Your task to perform on an android device: open wifi settings Image 0: 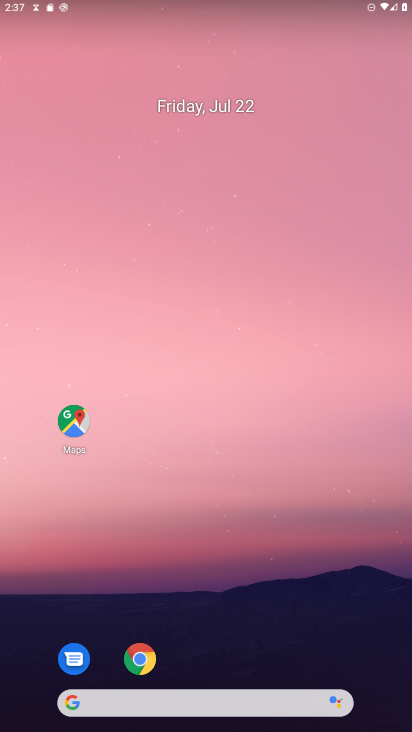
Step 0: drag from (284, 647) to (316, 8)
Your task to perform on an android device: open wifi settings Image 1: 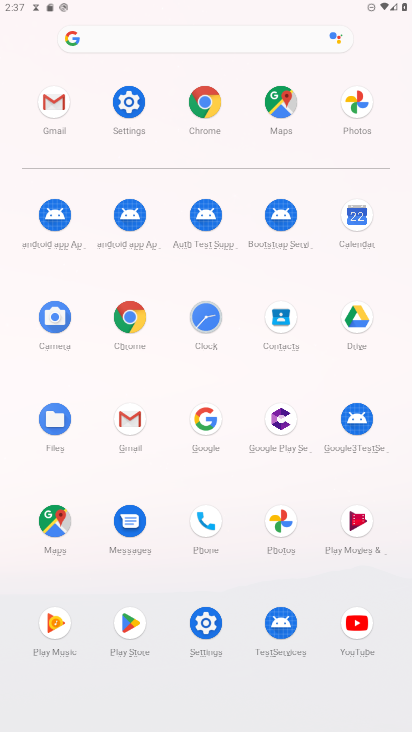
Step 1: click (131, 105)
Your task to perform on an android device: open wifi settings Image 2: 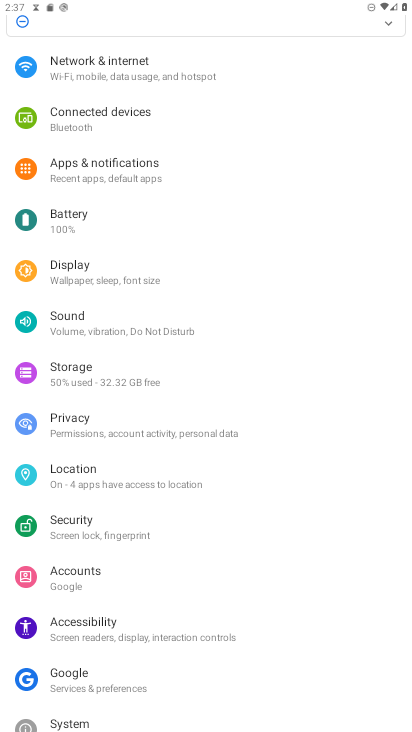
Step 2: click (130, 73)
Your task to perform on an android device: open wifi settings Image 3: 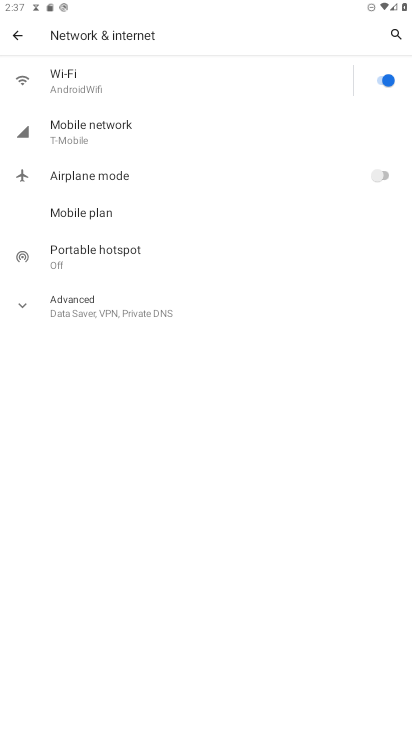
Step 3: click (106, 87)
Your task to perform on an android device: open wifi settings Image 4: 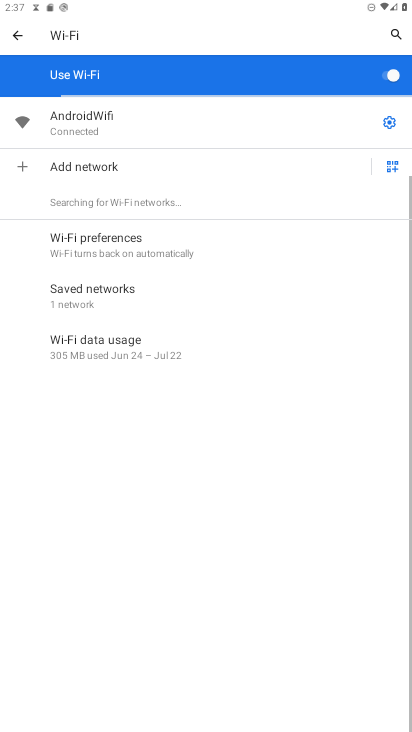
Step 4: task complete